Your task to perform on an android device: Is it going to rain today? Image 0: 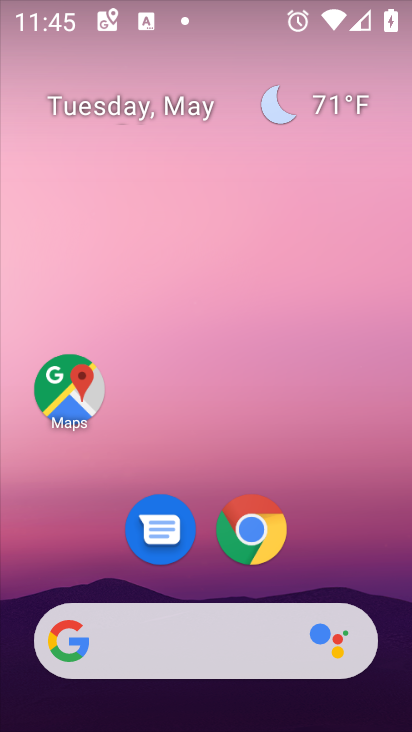
Step 0: drag from (202, 630) to (147, 309)
Your task to perform on an android device: Is it going to rain today? Image 1: 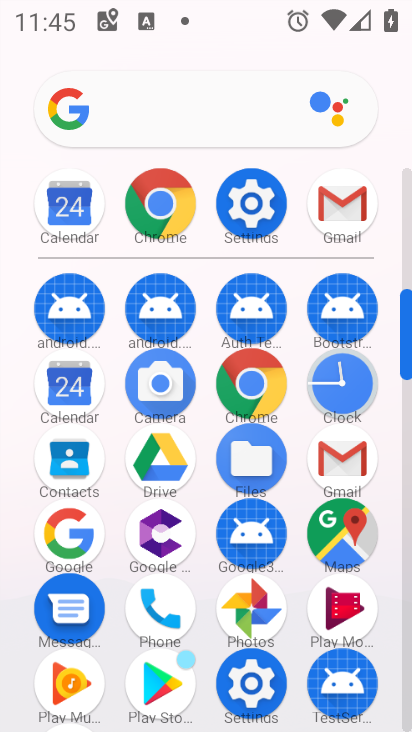
Step 1: click (79, 539)
Your task to perform on an android device: Is it going to rain today? Image 2: 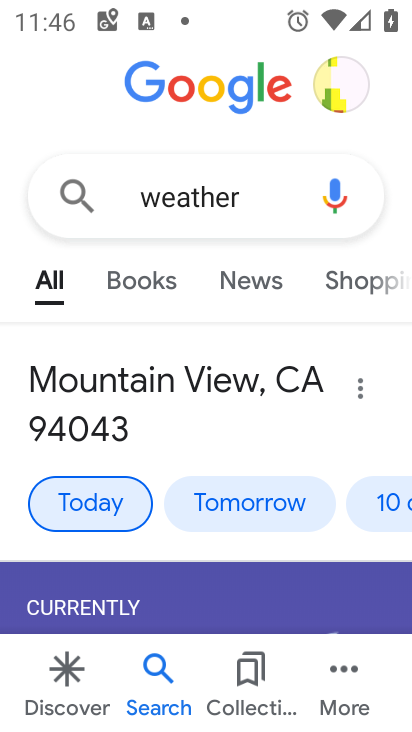
Step 2: task complete